Your task to perform on an android device: Clear the shopping cart on costco.com. Search for logitech g903 on costco.com, select the first entry, add it to the cart, then select checkout. Image 0: 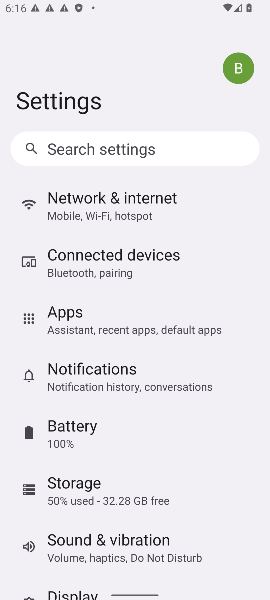
Step 0: press home button
Your task to perform on an android device: Clear the shopping cart on costco.com. Search for logitech g903 on costco.com, select the first entry, add it to the cart, then select checkout. Image 1: 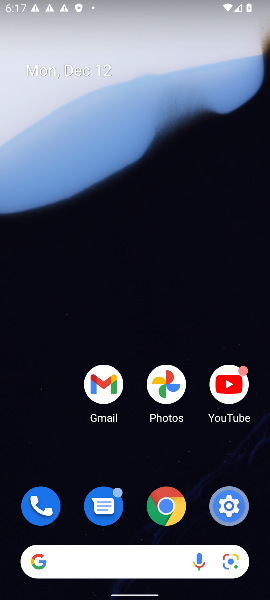
Step 1: click (149, 562)
Your task to perform on an android device: Clear the shopping cart on costco.com. Search for logitech g903 on costco.com, select the first entry, add it to the cart, then select checkout. Image 2: 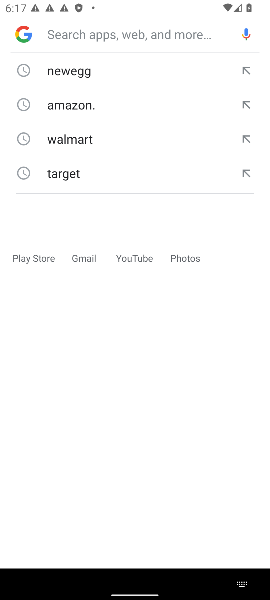
Step 2: type "costco"
Your task to perform on an android device: Clear the shopping cart on costco.com. Search for logitech g903 on costco.com, select the first entry, add it to the cart, then select checkout. Image 3: 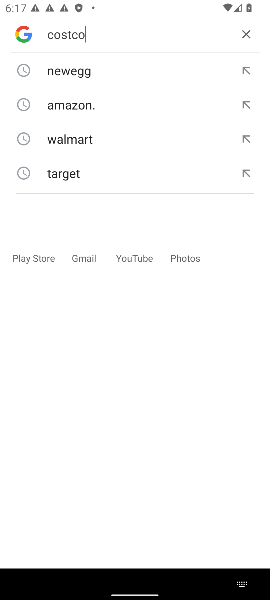
Step 3: click (166, 37)
Your task to perform on an android device: Clear the shopping cart on costco.com. Search for logitech g903 on costco.com, select the first entry, add it to the cart, then select checkout. Image 4: 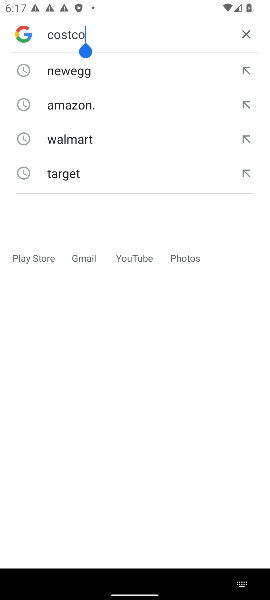
Step 4: click (135, 49)
Your task to perform on an android device: Clear the shopping cart on costco.com. Search for logitech g903 on costco.com, select the first entry, add it to the cart, then select checkout. Image 5: 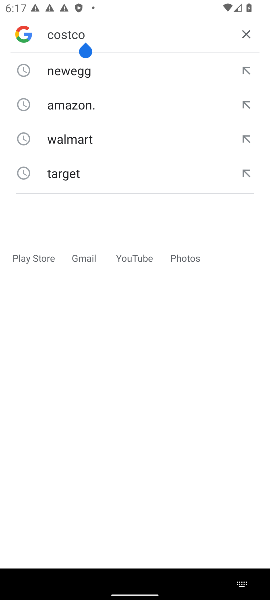
Step 5: press home button
Your task to perform on an android device: Clear the shopping cart on costco.com. Search for logitech g903 on costco.com, select the first entry, add it to the cart, then select checkout. Image 6: 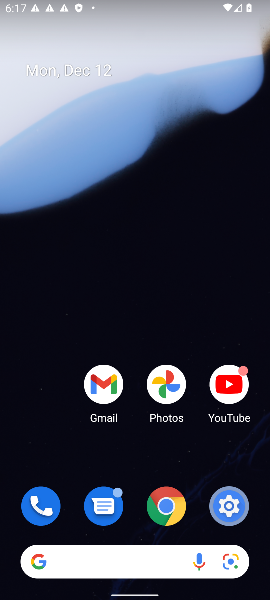
Step 6: click (161, 521)
Your task to perform on an android device: Clear the shopping cart on costco.com. Search for logitech g903 on costco.com, select the first entry, add it to the cart, then select checkout. Image 7: 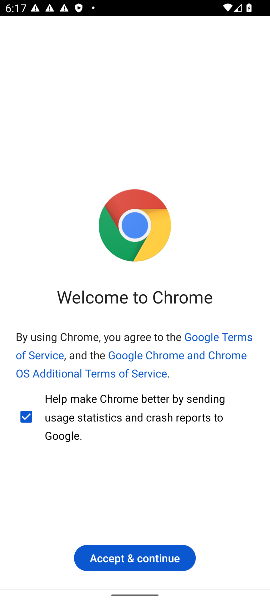
Step 7: click (155, 551)
Your task to perform on an android device: Clear the shopping cart on costco.com. Search for logitech g903 on costco.com, select the first entry, add it to the cart, then select checkout. Image 8: 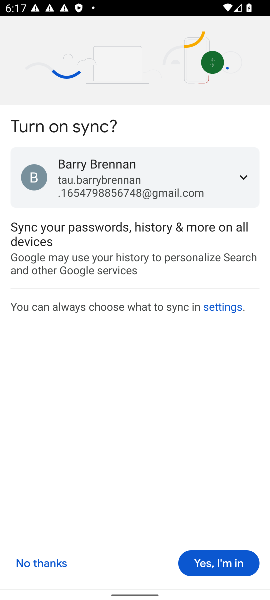
Step 8: click (201, 561)
Your task to perform on an android device: Clear the shopping cart on costco.com. Search for logitech g903 on costco.com, select the first entry, add it to the cart, then select checkout. Image 9: 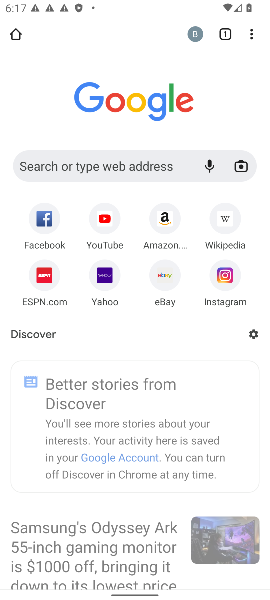
Step 9: click (132, 170)
Your task to perform on an android device: Clear the shopping cart on costco.com. Search for logitech g903 on costco.com, select the first entry, add it to the cart, then select checkout. Image 10: 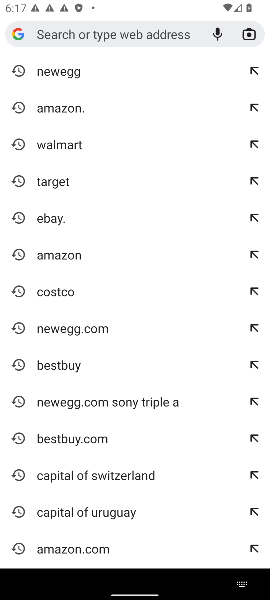
Step 10: type "c"
Your task to perform on an android device: Clear the shopping cart on costco.com. Search for logitech g903 on costco.com, select the first entry, add it to the cart, then select checkout. Image 11: 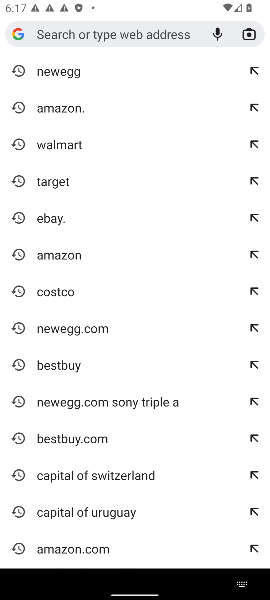
Step 11: click (63, 301)
Your task to perform on an android device: Clear the shopping cart on costco.com. Search for logitech g903 on costco.com, select the first entry, add it to the cart, then select checkout. Image 12: 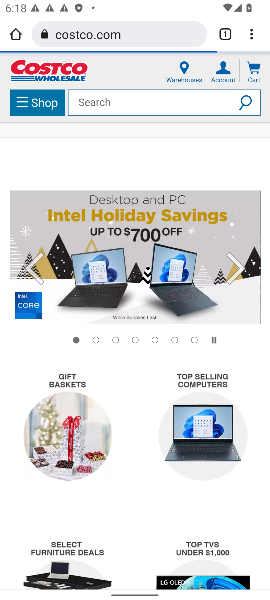
Step 12: click (173, 103)
Your task to perform on an android device: Clear the shopping cart on costco.com. Search for logitech g903 on costco.com, select the first entry, add it to the cart, then select checkout. Image 13: 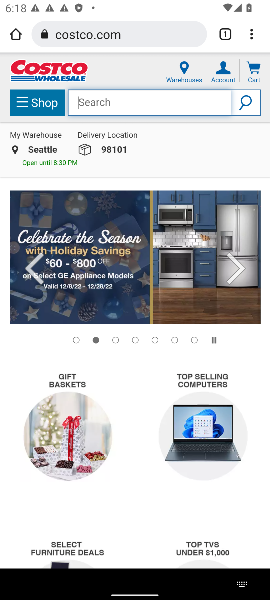
Step 13: type "logitech g903"
Your task to perform on an android device: Clear the shopping cart on costco.com. Search for logitech g903 on costco.com, select the first entry, add it to the cart, then select checkout. Image 14: 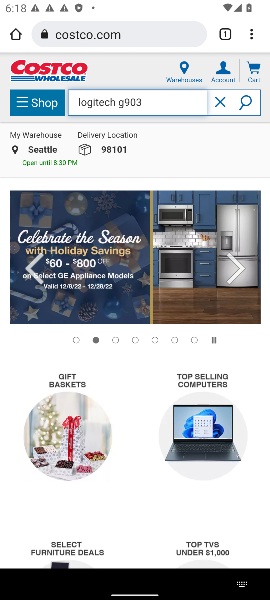
Step 14: click (245, 105)
Your task to perform on an android device: Clear the shopping cart on costco.com. Search for logitech g903 on costco.com, select the first entry, add it to the cart, then select checkout. Image 15: 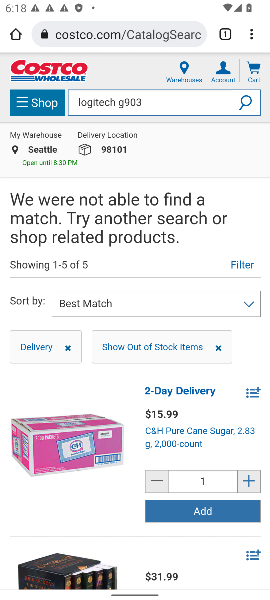
Step 15: task complete